Your task to perform on an android device: open app "Lyft - Rideshare, Bikes, Scooters & Transit" (install if not already installed) Image 0: 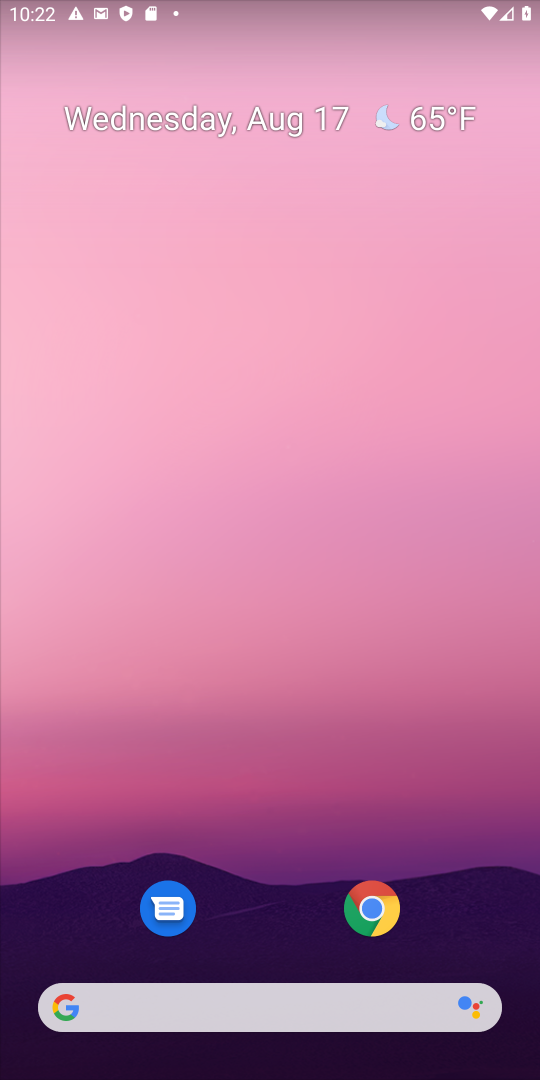
Step 0: drag from (292, 913) to (356, 77)
Your task to perform on an android device: open app "Lyft - Rideshare, Bikes, Scooters & Transit" (install if not already installed) Image 1: 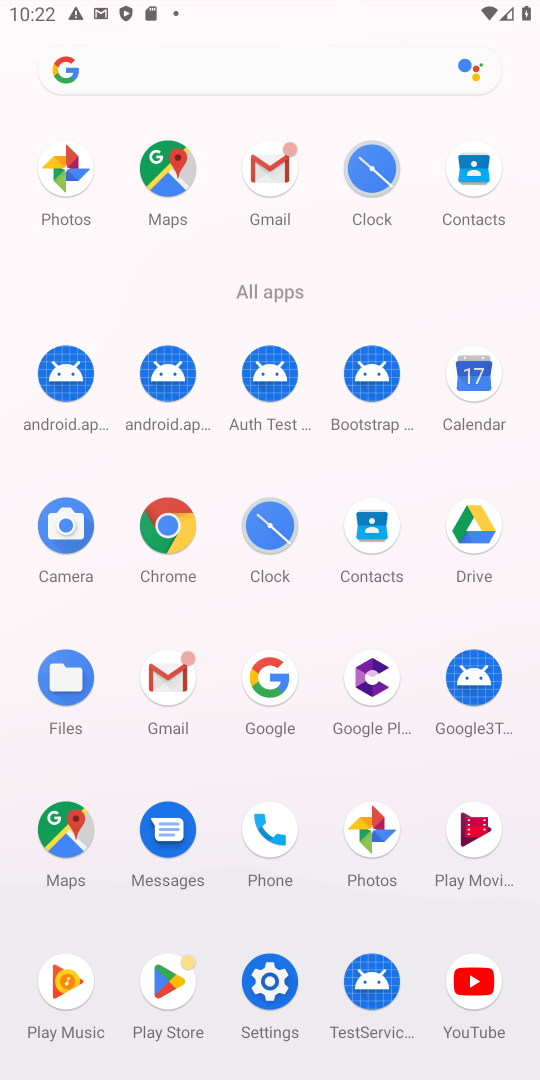
Step 1: click (177, 987)
Your task to perform on an android device: open app "Lyft - Rideshare, Bikes, Scooters & Transit" (install if not already installed) Image 2: 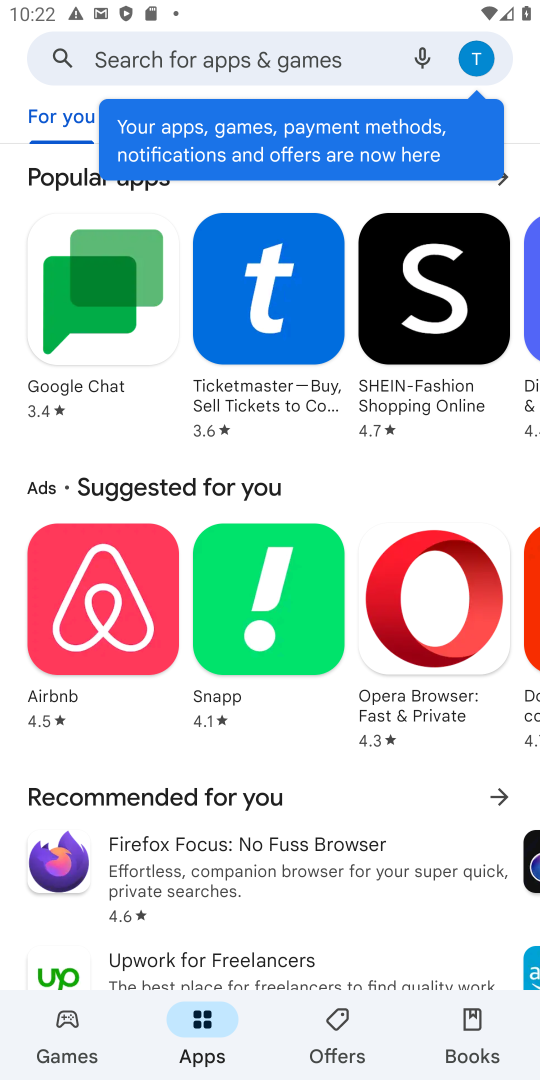
Step 2: click (270, 60)
Your task to perform on an android device: open app "Lyft - Rideshare, Bikes, Scooters & Transit" (install if not already installed) Image 3: 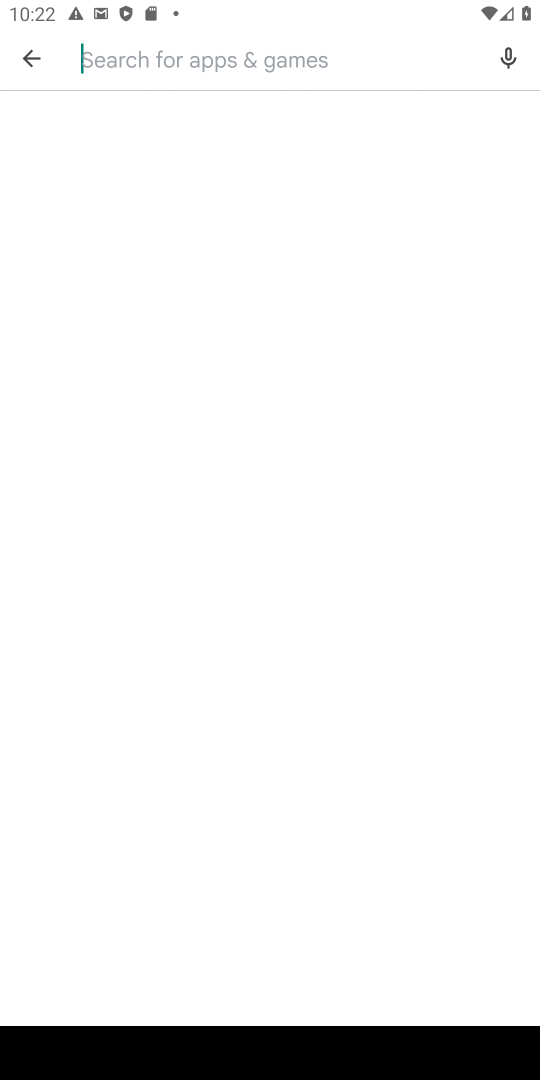
Step 3: type "lyft"
Your task to perform on an android device: open app "Lyft - Rideshare, Bikes, Scooters & Transit" (install if not already installed) Image 4: 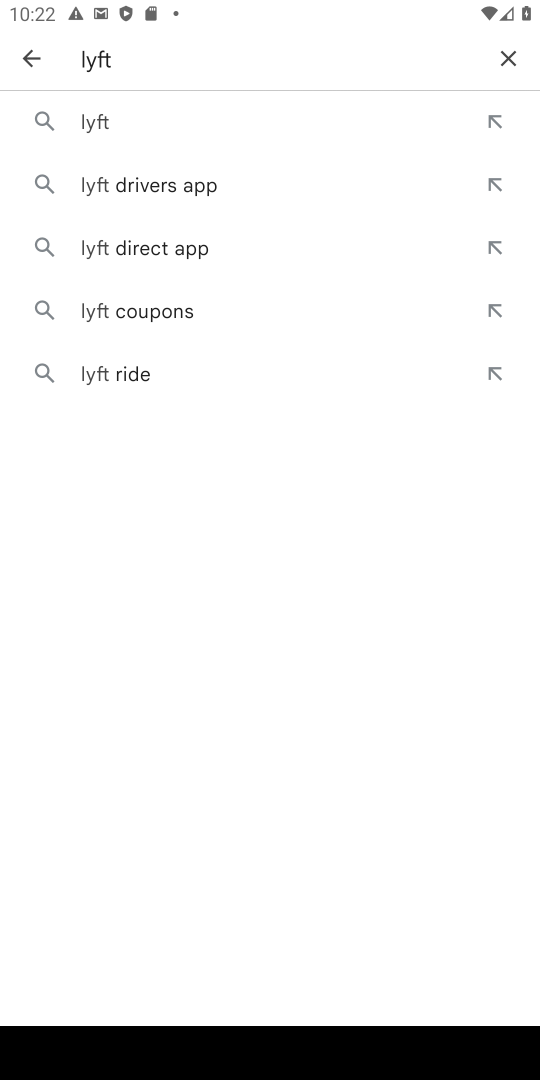
Step 4: click (94, 111)
Your task to perform on an android device: open app "Lyft - Rideshare, Bikes, Scooters & Transit" (install if not already installed) Image 5: 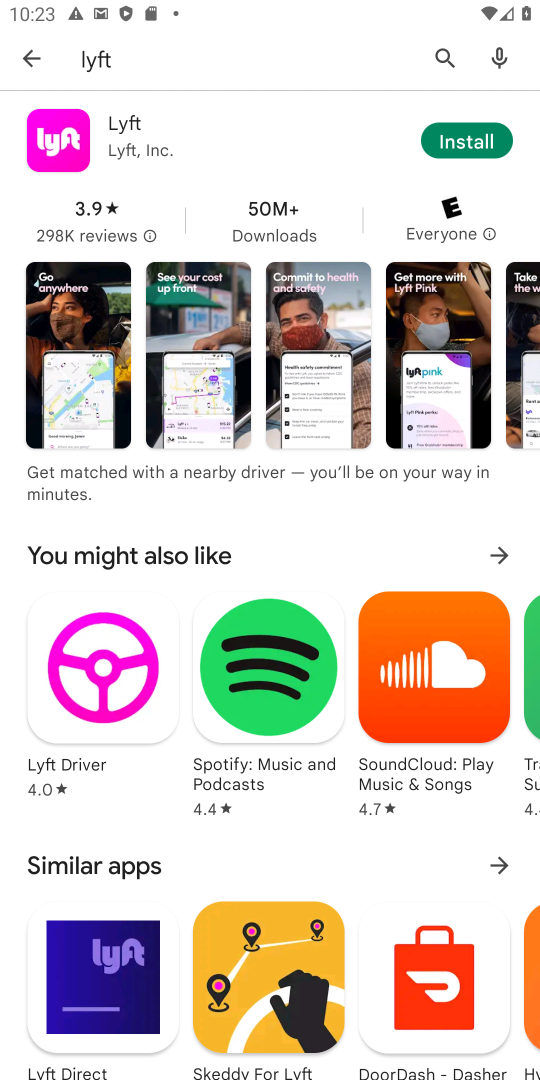
Step 5: click (477, 147)
Your task to perform on an android device: open app "Lyft - Rideshare, Bikes, Scooters & Transit" (install if not already installed) Image 6: 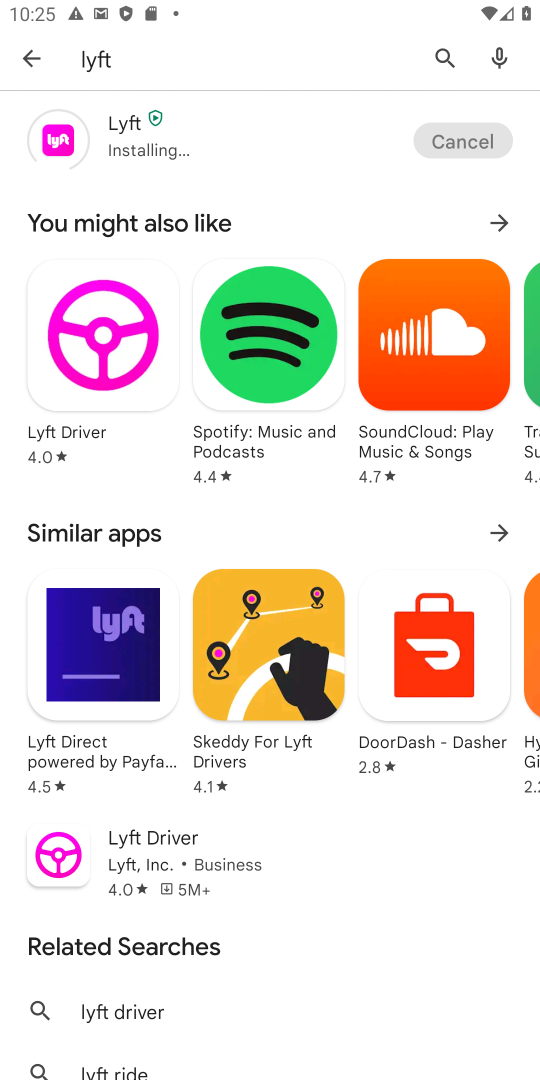
Step 6: press back button
Your task to perform on an android device: open app "Lyft - Rideshare, Bikes, Scooters & Transit" (install if not already installed) Image 7: 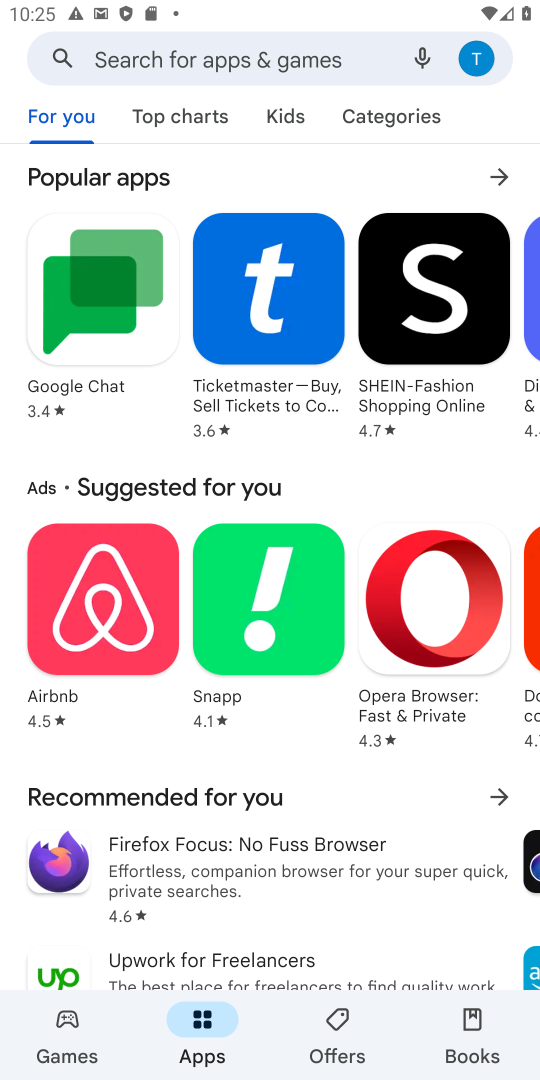
Step 7: click (279, 61)
Your task to perform on an android device: open app "Lyft - Rideshare, Bikes, Scooters & Transit" (install if not already installed) Image 8: 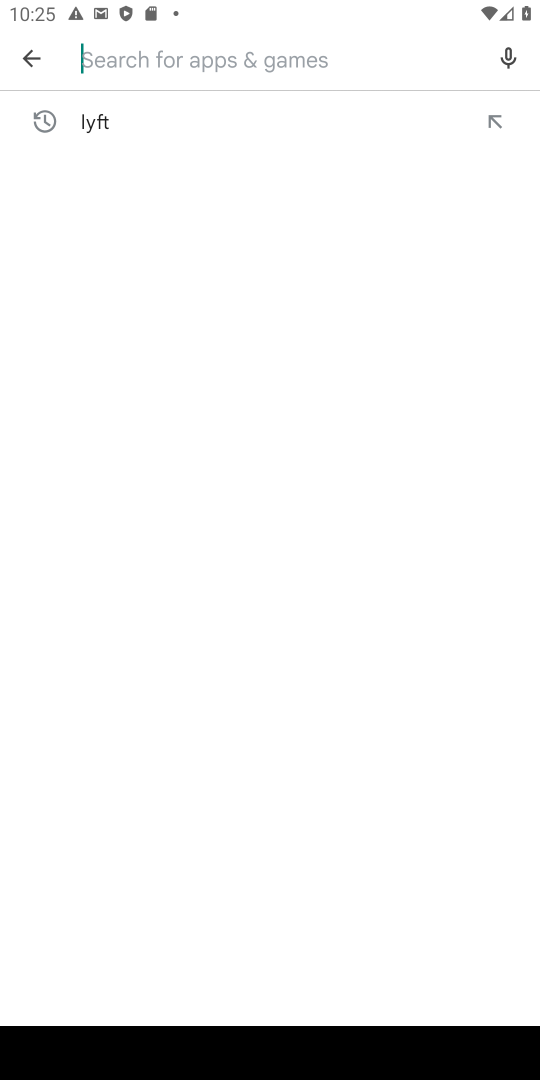
Step 8: click (144, 133)
Your task to perform on an android device: open app "Lyft - Rideshare, Bikes, Scooters & Transit" (install if not already installed) Image 9: 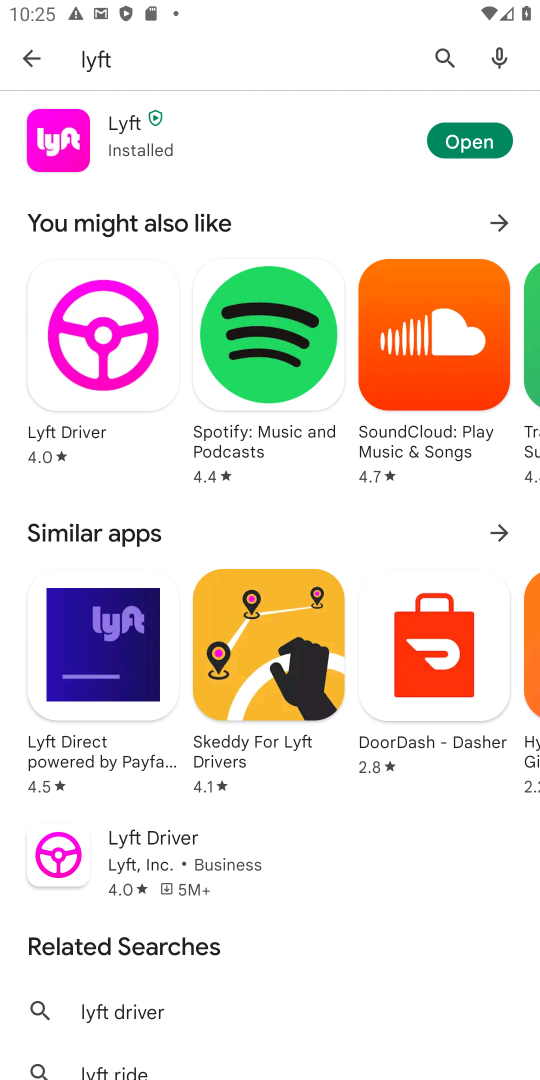
Step 9: click (466, 133)
Your task to perform on an android device: open app "Lyft - Rideshare, Bikes, Scooters & Transit" (install if not already installed) Image 10: 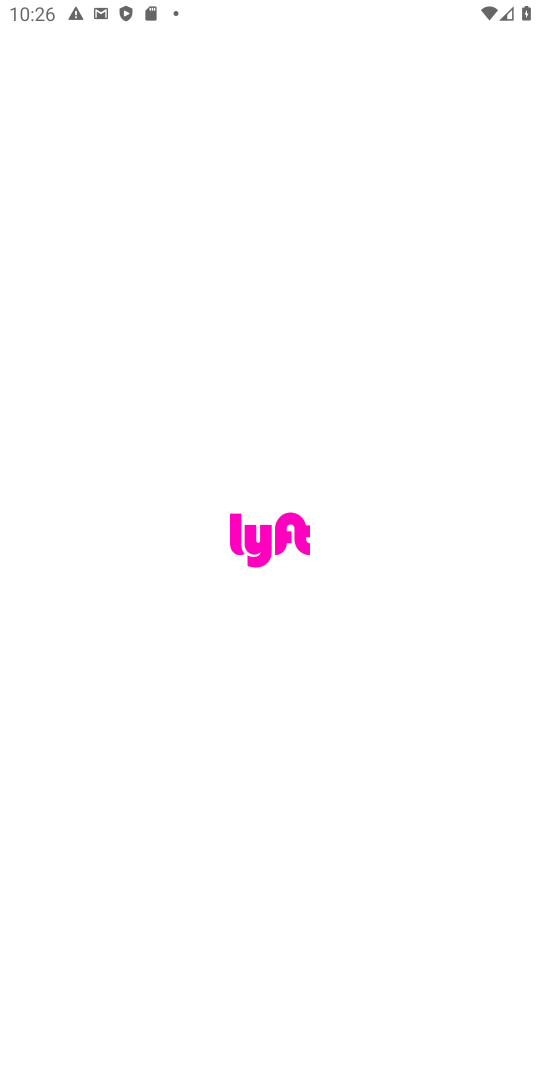
Step 10: task complete